Your task to perform on an android device: Open Google Maps and go to "Timeline" Image 0: 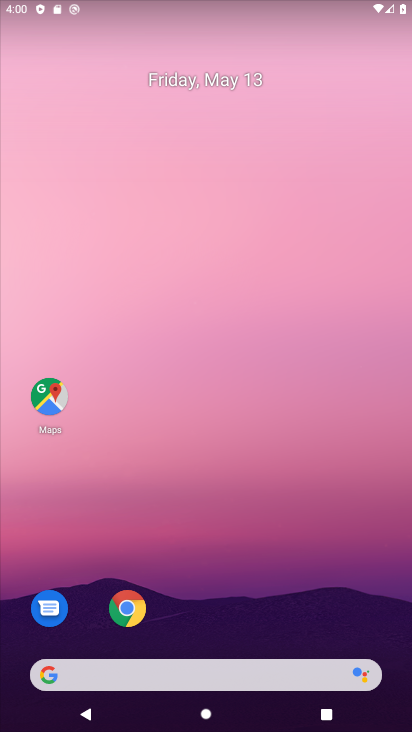
Step 0: drag from (253, 670) to (326, 5)
Your task to perform on an android device: Open Google Maps and go to "Timeline" Image 1: 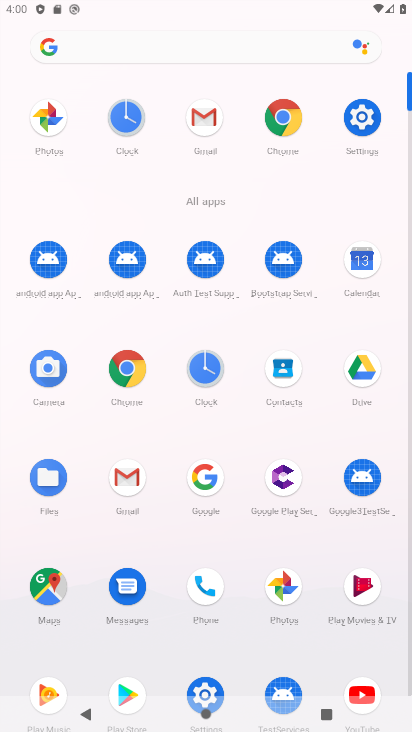
Step 1: click (52, 597)
Your task to perform on an android device: Open Google Maps and go to "Timeline" Image 2: 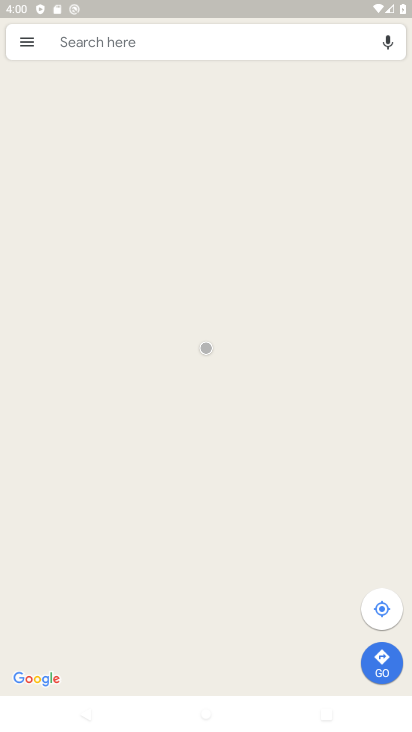
Step 2: click (21, 48)
Your task to perform on an android device: Open Google Maps and go to "Timeline" Image 3: 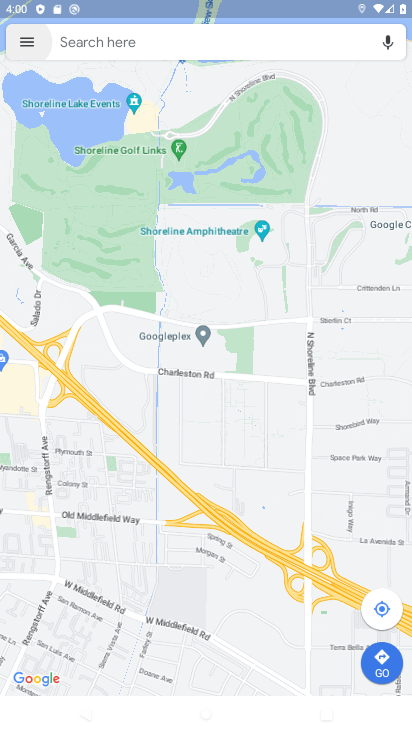
Step 3: click (30, 37)
Your task to perform on an android device: Open Google Maps and go to "Timeline" Image 4: 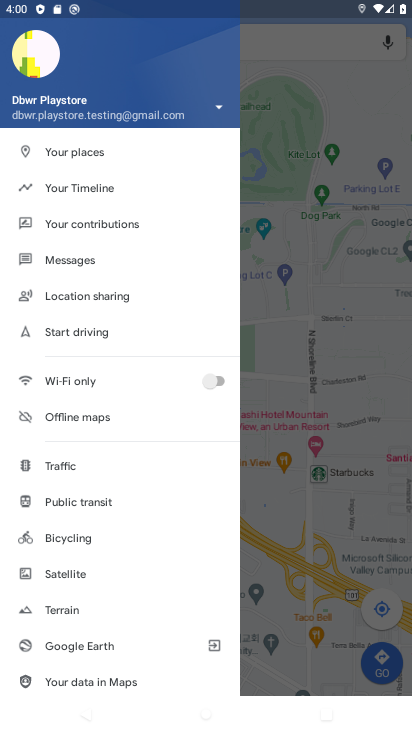
Step 4: click (93, 185)
Your task to perform on an android device: Open Google Maps and go to "Timeline" Image 5: 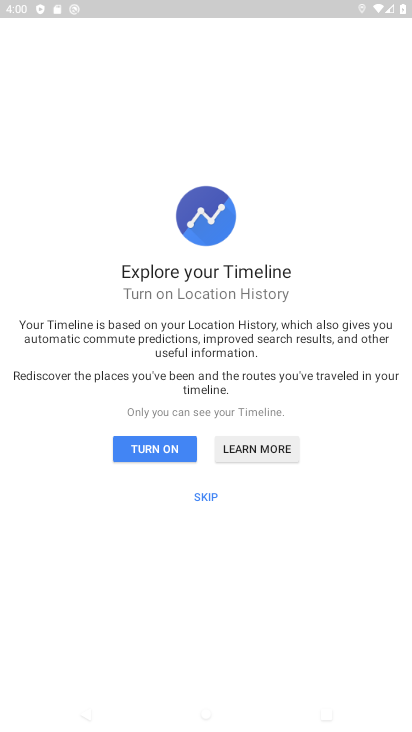
Step 5: click (200, 496)
Your task to perform on an android device: Open Google Maps and go to "Timeline" Image 6: 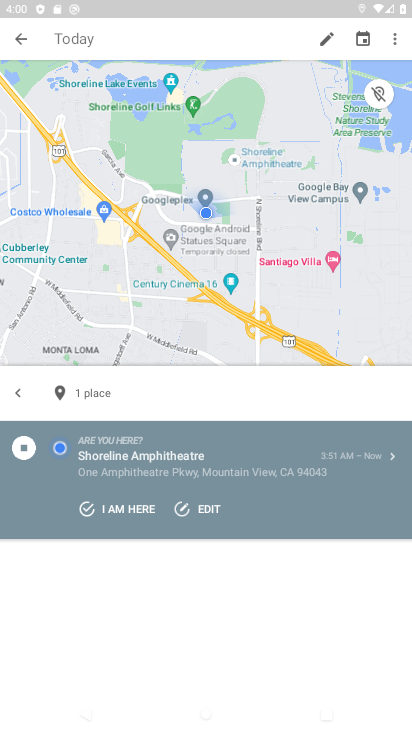
Step 6: task complete